Your task to perform on an android device: toggle sleep mode Image 0: 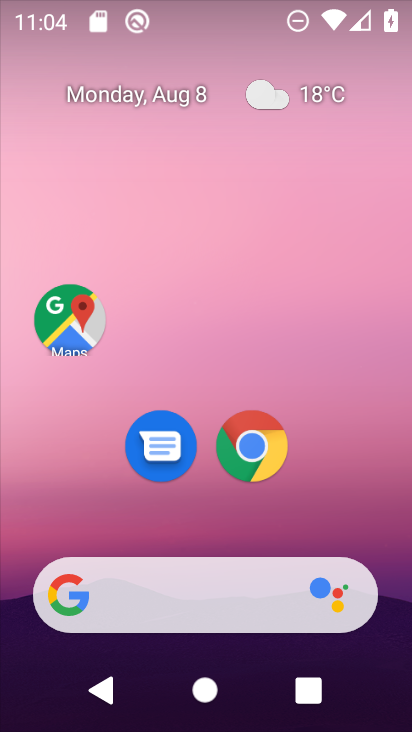
Step 0: drag from (397, 619) to (349, 111)
Your task to perform on an android device: toggle sleep mode Image 1: 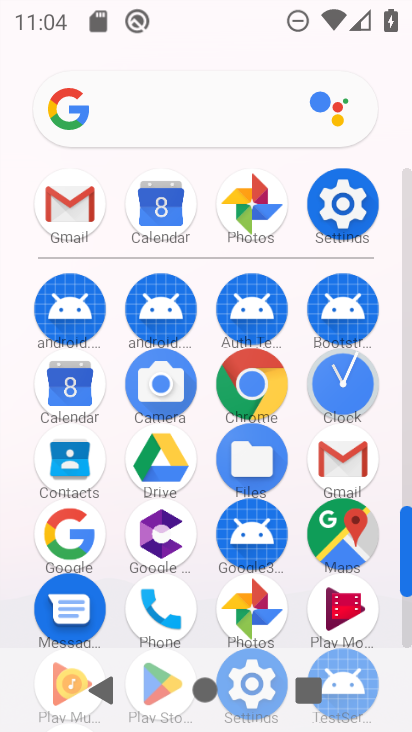
Step 1: click (406, 636)
Your task to perform on an android device: toggle sleep mode Image 2: 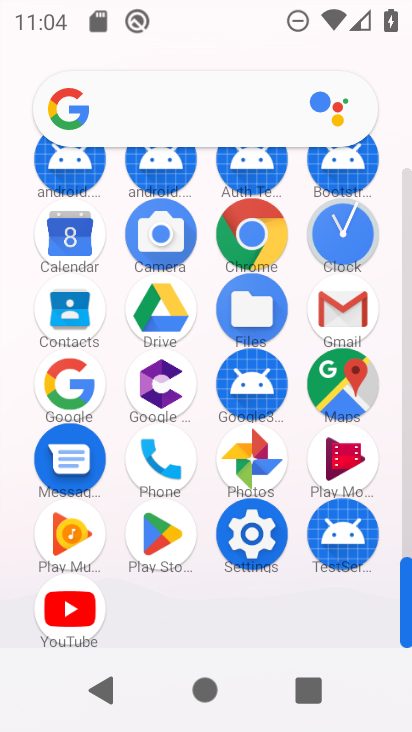
Step 2: click (250, 534)
Your task to perform on an android device: toggle sleep mode Image 3: 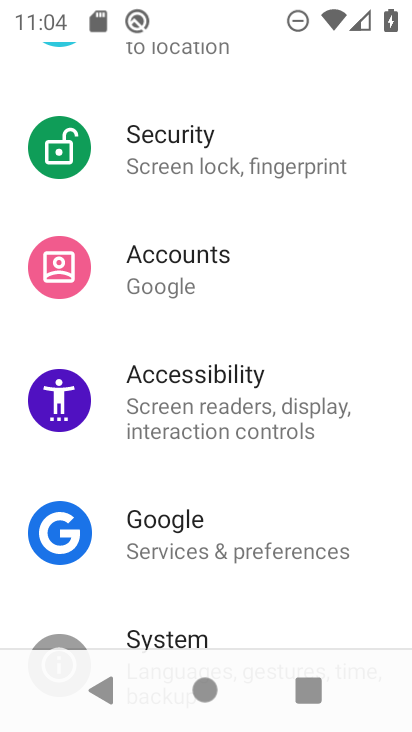
Step 3: drag from (362, 245) to (356, 539)
Your task to perform on an android device: toggle sleep mode Image 4: 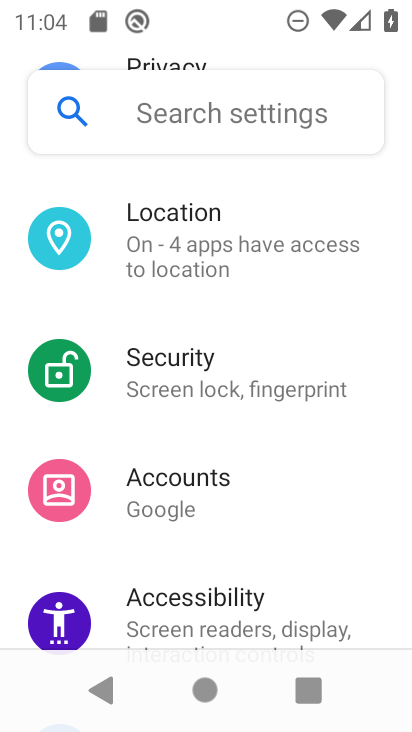
Step 4: drag from (373, 273) to (357, 536)
Your task to perform on an android device: toggle sleep mode Image 5: 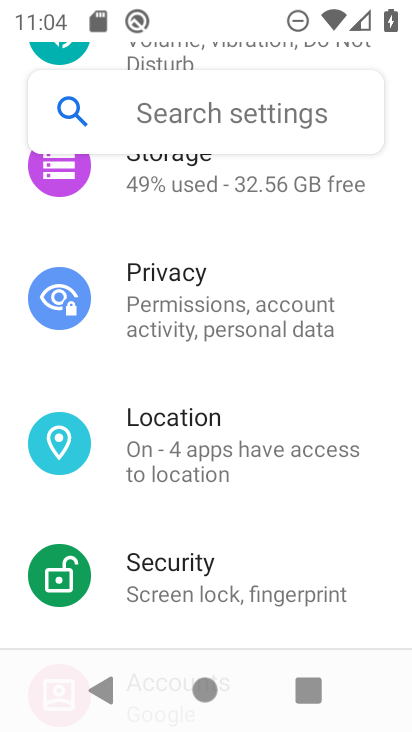
Step 5: drag from (380, 264) to (341, 586)
Your task to perform on an android device: toggle sleep mode Image 6: 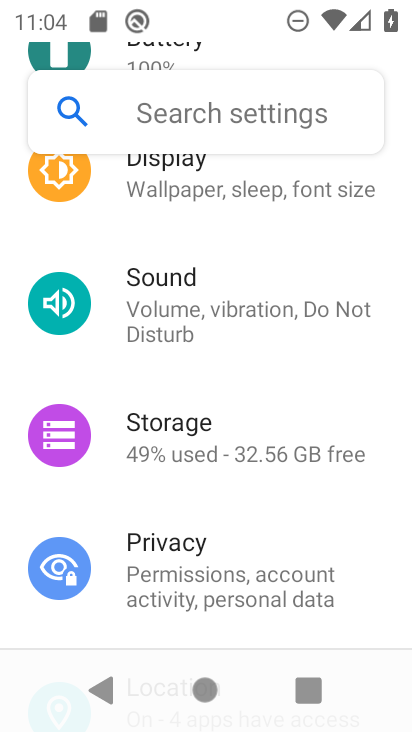
Step 6: drag from (295, 208) to (297, 442)
Your task to perform on an android device: toggle sleep mode Image 7: 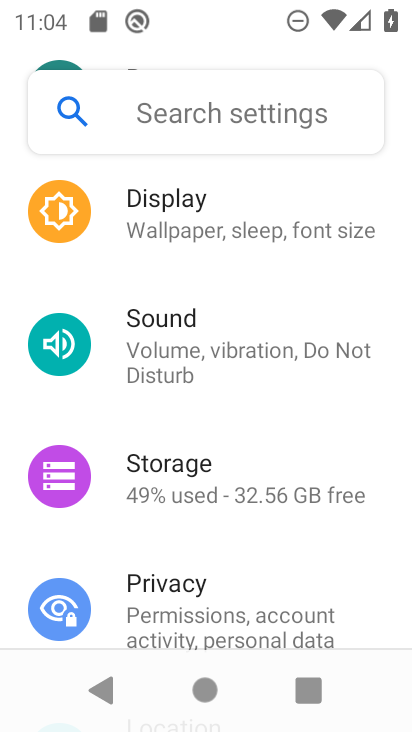
Step 7: click (175, 208)
Your task to perform on an android device: toggle sleep mode Image 8: 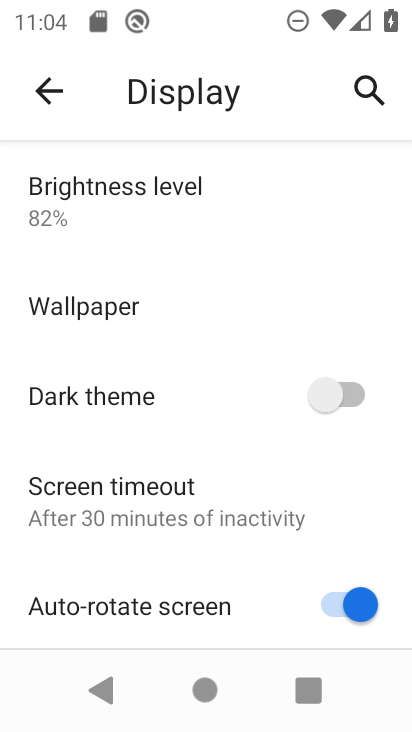
Step 8: drag from (239, 546) to (211, 200)
Your task to perform on an android device: toggle sleep mode Image 9: 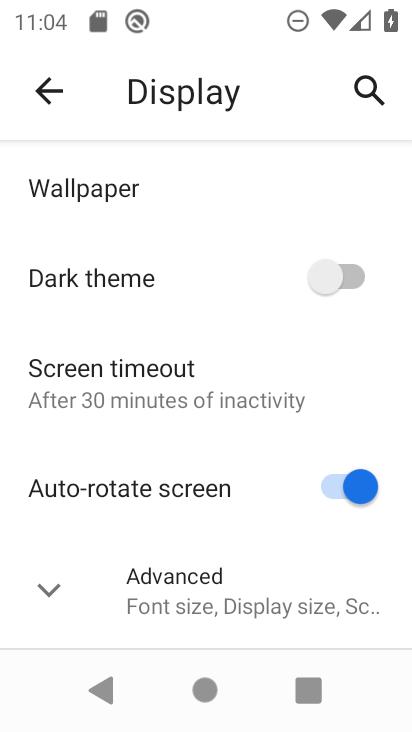
Step 9: click (48, 591)
Your task to perform on an android device: toggle sleep mode Image 10: 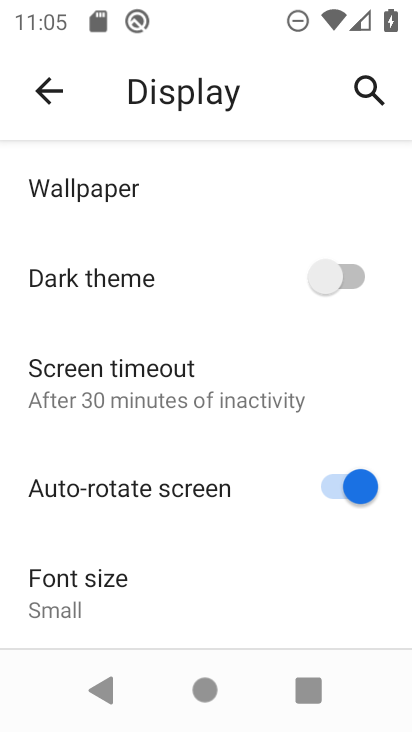
Step 10: task complete